Your task to perform on an android device: Go to battery settings Image 0: 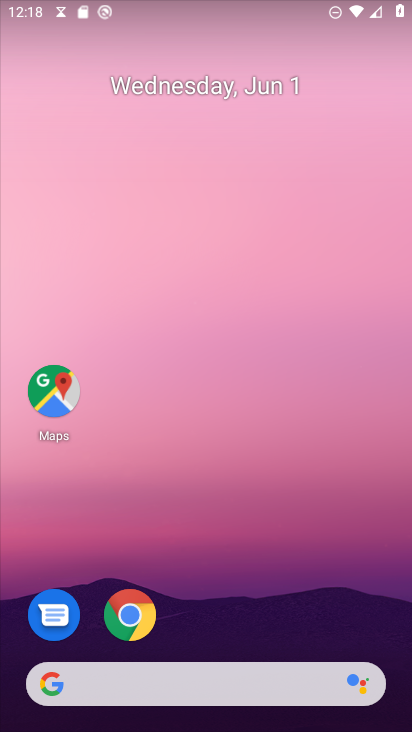
Step 0: drag from (300, 705) to (263, 4)
Your task to perform on an android device: Go to battery settings Image 1: 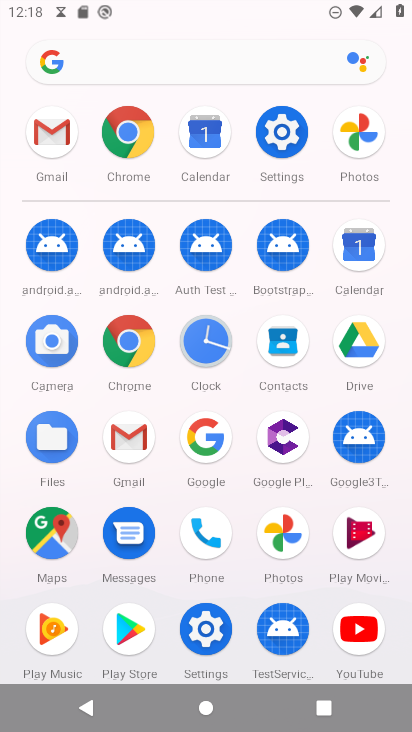
Step 1: click (294, 131)
Your task to perform on an android device: Go to battery settings Image 2: 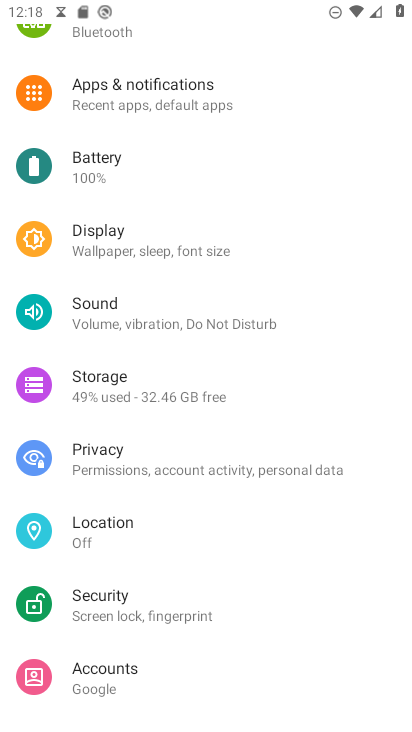
Step 2: click (152, 165)
Your task to perform on an android device: Go to battery settings Image 3: 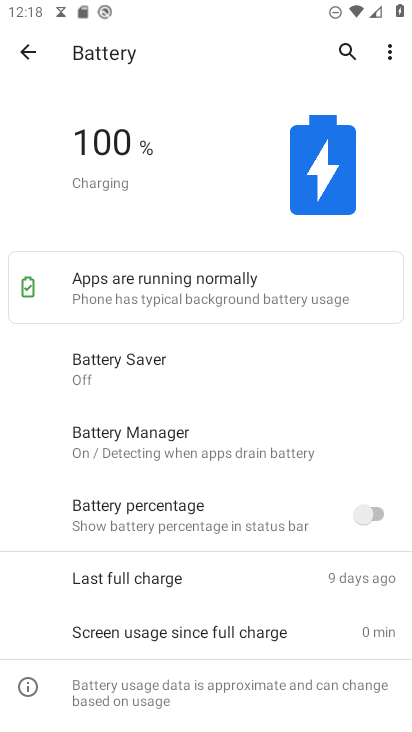
Step 3: task complete